Your task to perform on an android device: Turn on the flashlight Image 0: 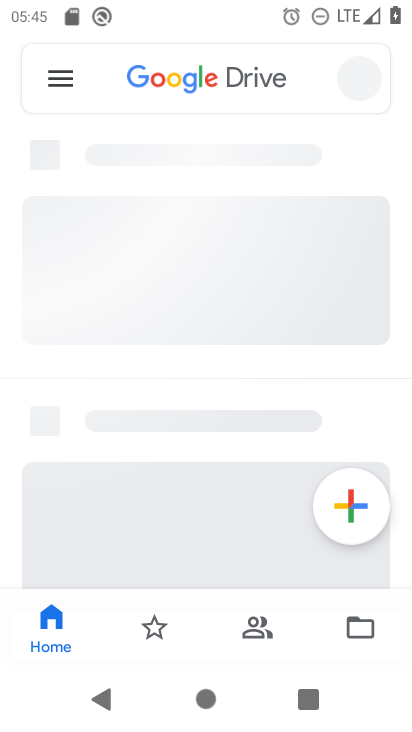
Step 0: press home button
Your task to perform on an android device: Turn on the flashlight Image 1: 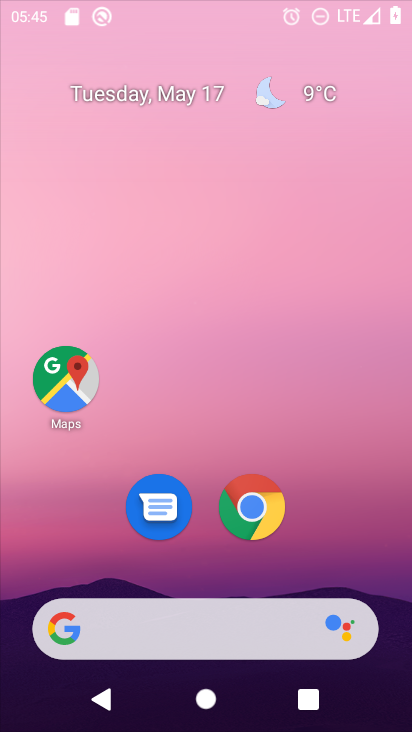
Step 1: task complete